Your task to perform on an android device: change the clock display to show seconds Image 0: 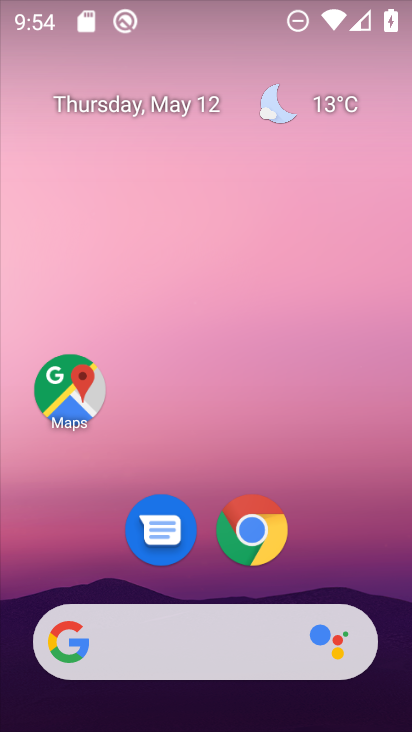
Step 0: drag from (333, 539) to (371, 198)
Your task to perform on an android device: change the clock display to show seconds Image 1: 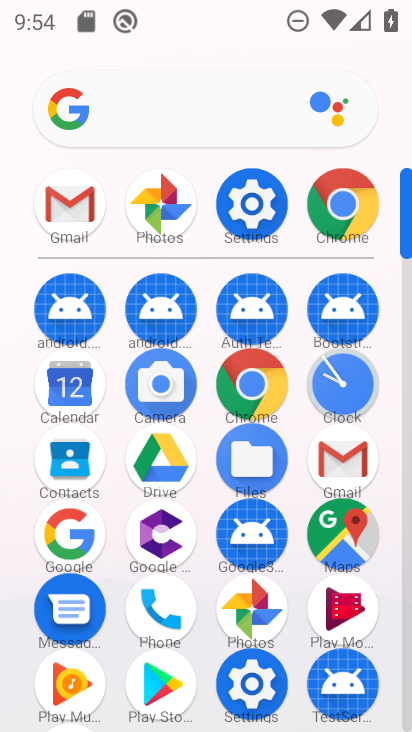
Step 1: click (337, 376)
Your task to perform on an android device: change the clock display to show seconds Image 2: 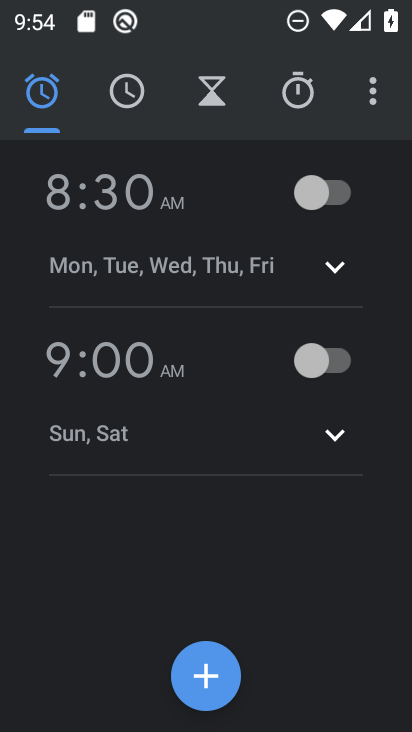
Step 2: click (368, 100)
Your task to perform on an android device: change the clock display to show seconds Image 3: 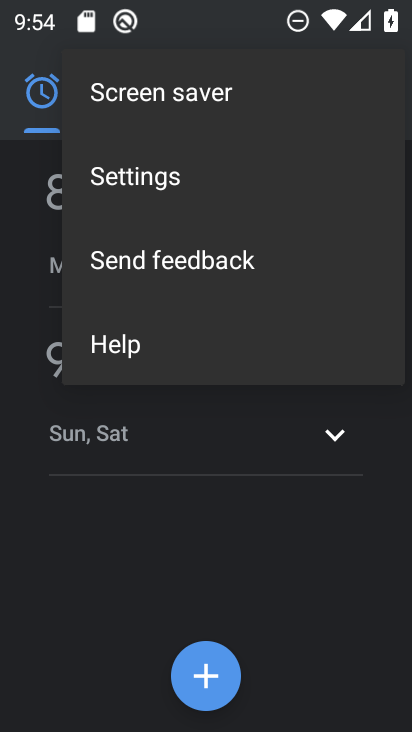
Step 3: click (221, 183)
Your task to perform on an android device: change the clock display to show seconds Image 4: 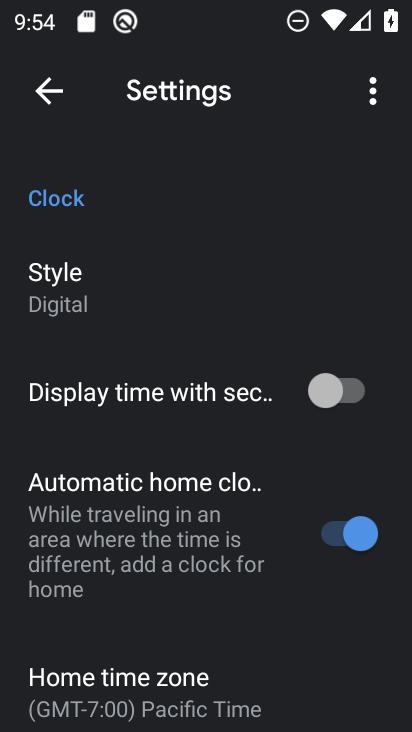
Step 4: click (333, 394)
Your task to perform on an android device: change the clock display to show seconds Image 5: 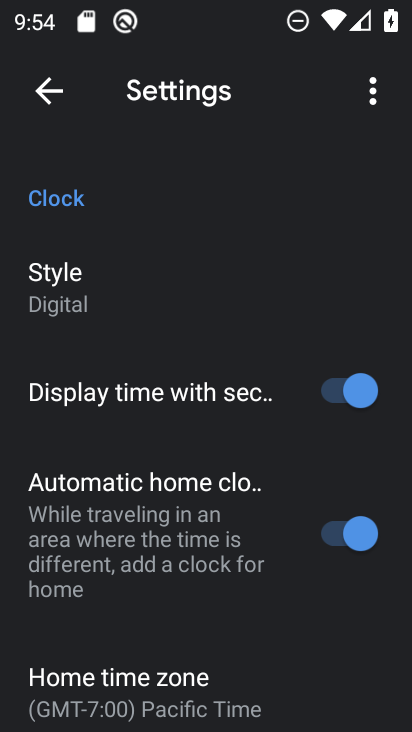
Step 5: task complete